Your task to perform on an android device: Search for macbook on target.com, select the first entry, and add it to the cart. Image 0: 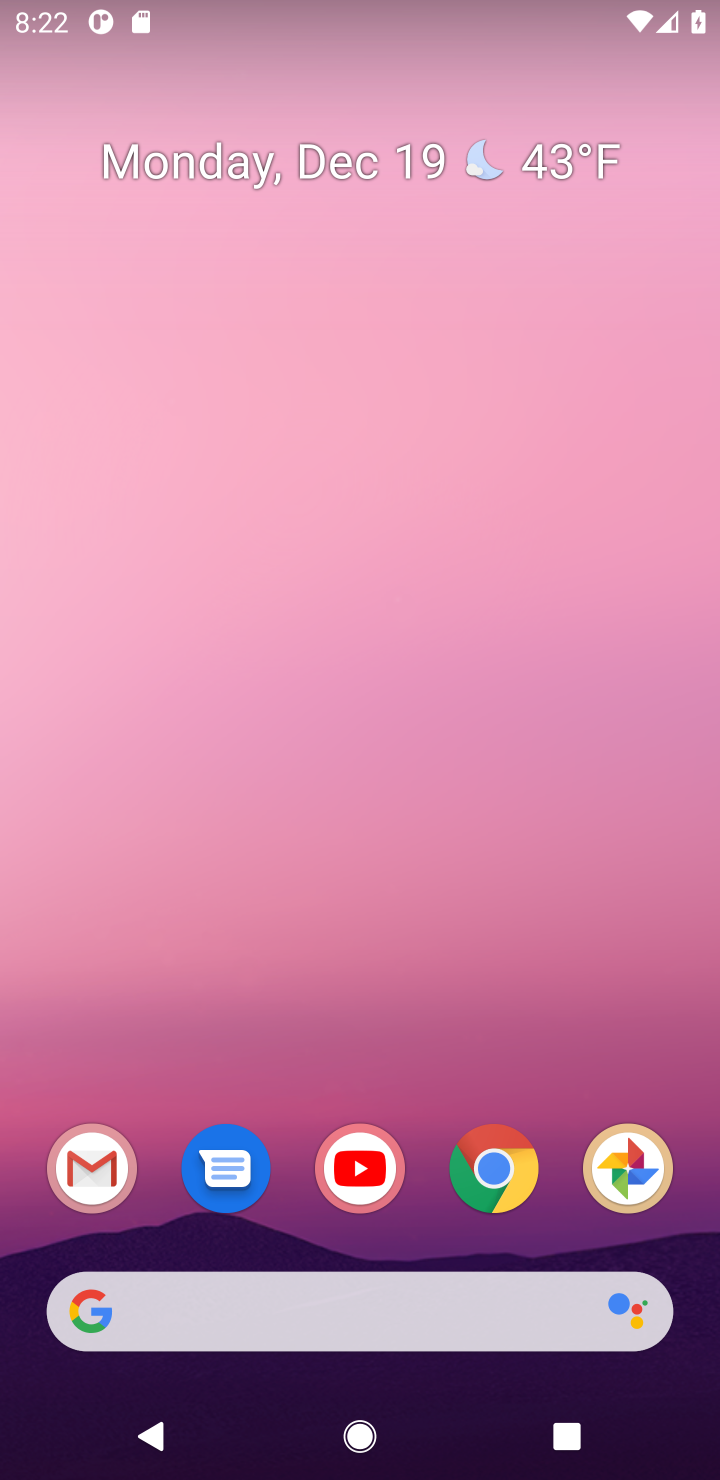
Step 0: click (496, 1168)
Your task to perform on an android device: Search for macbook on target.com, select the first entry, and add it to the cart. Image 1: 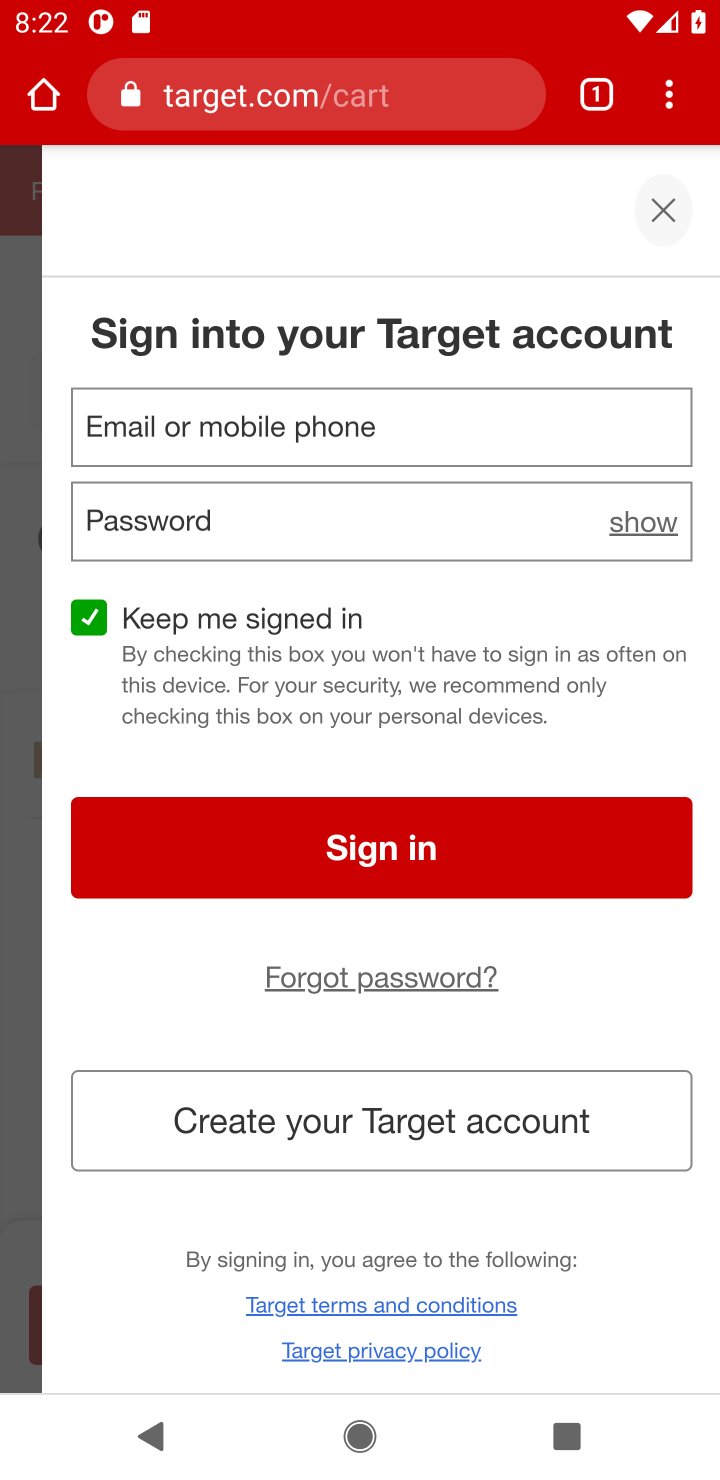
Step 1: click (658, 214)
Your task to perform on an android device: Search for macbook on target.com, select the first entry, and add it to the cart. Image 2: 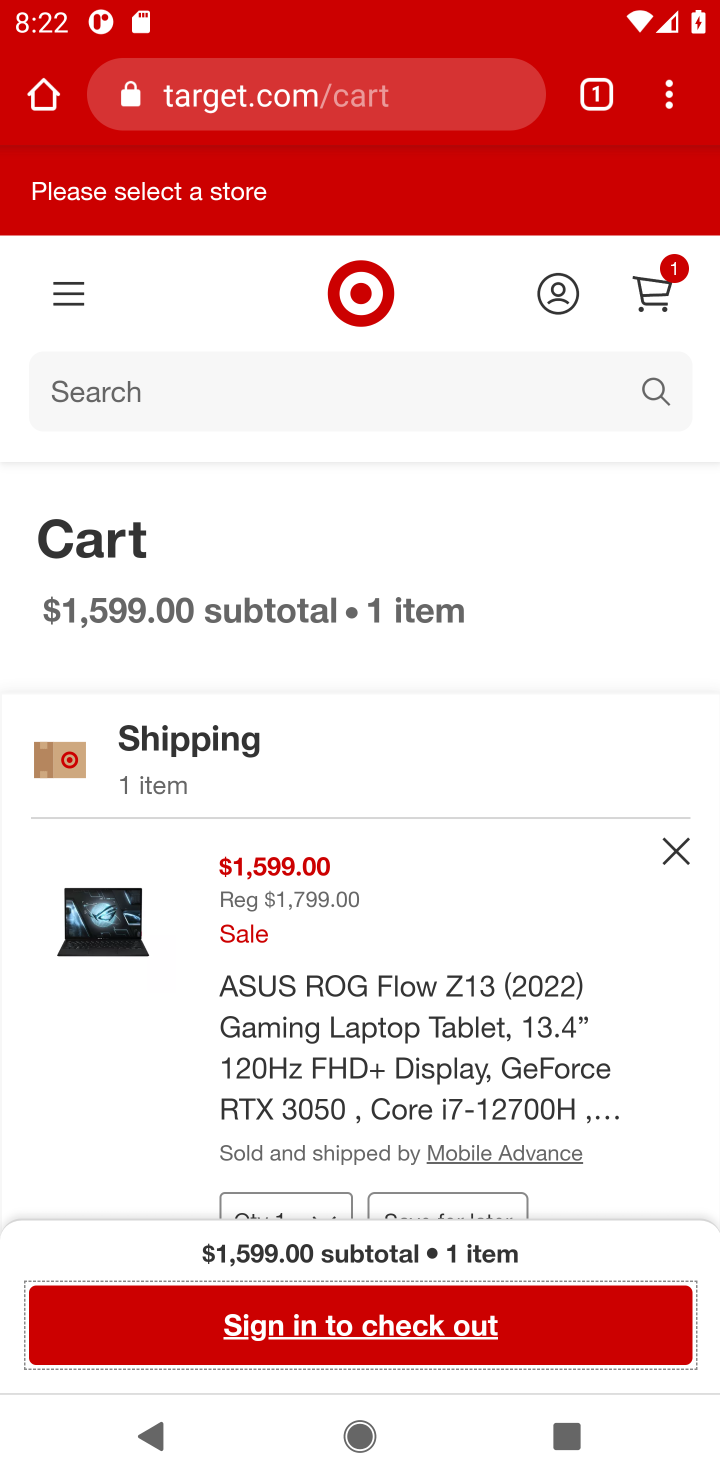
Step 2: click (95, 396)
Your task to perform on an android device: Search for macbook on target.com, select the first entry, and add it to the cart. Image 3: 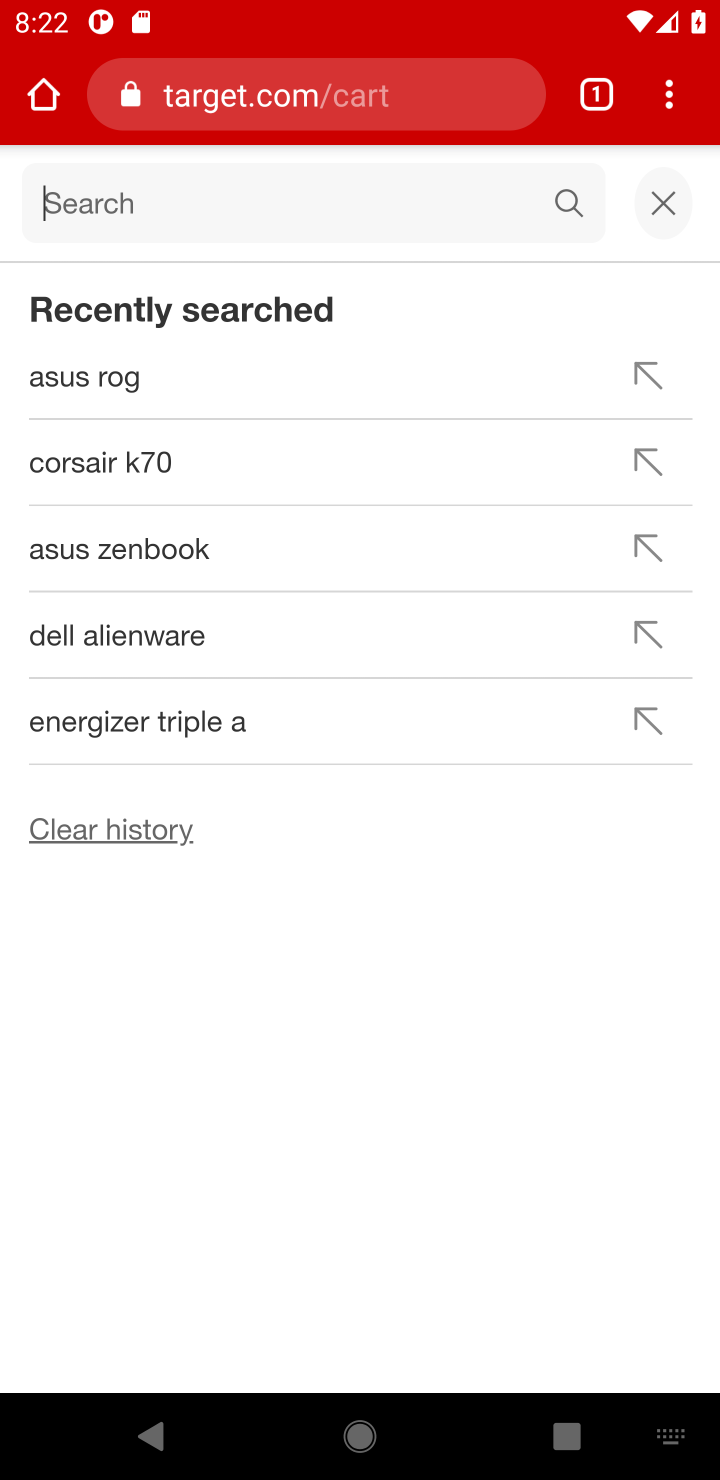
Step 3: type "macbook"
Your task to perform on an android device: Search for macbook on target.com, select the first entry, and add it to the cart. Image 4: 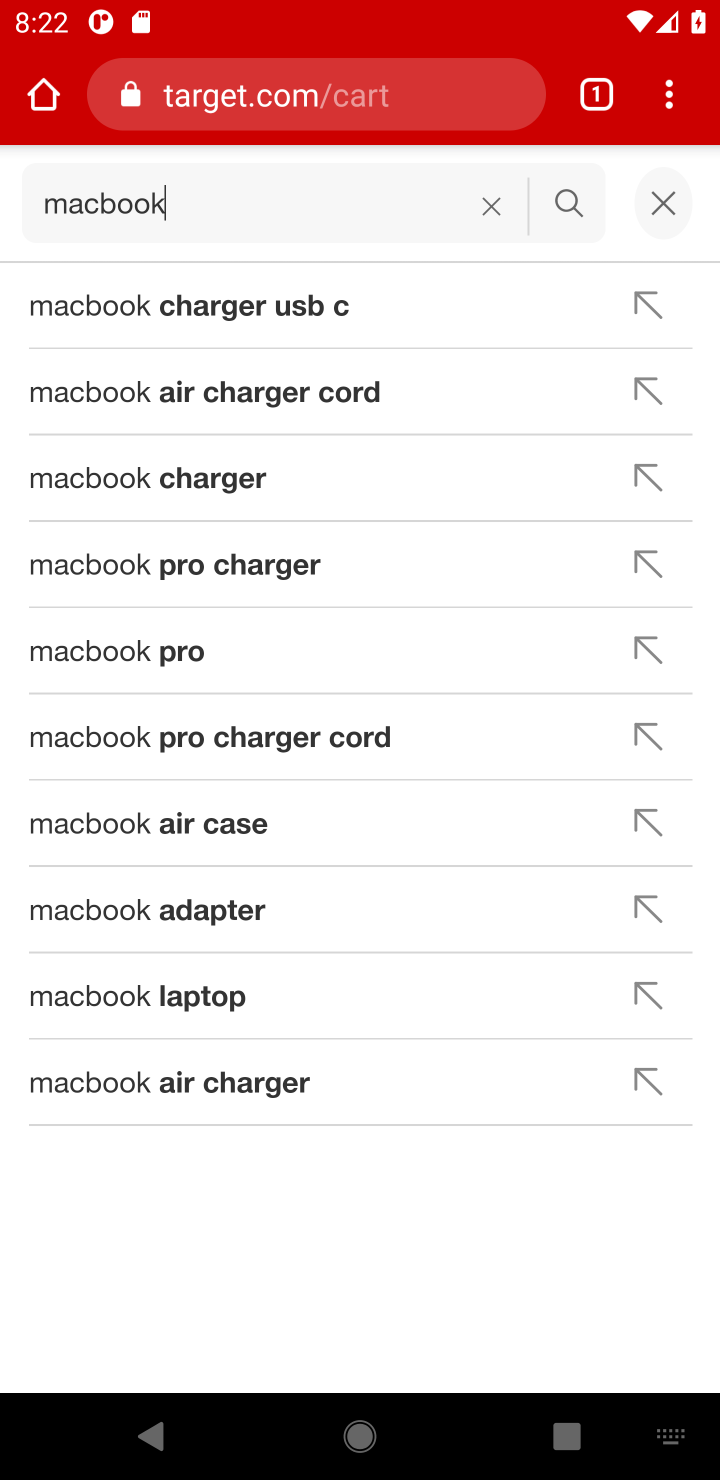
Step 4: click (568, 195)
Your task to perform on an android device: Search for macbook on target.com, select the first entry, and add it to the cart. Image 5: 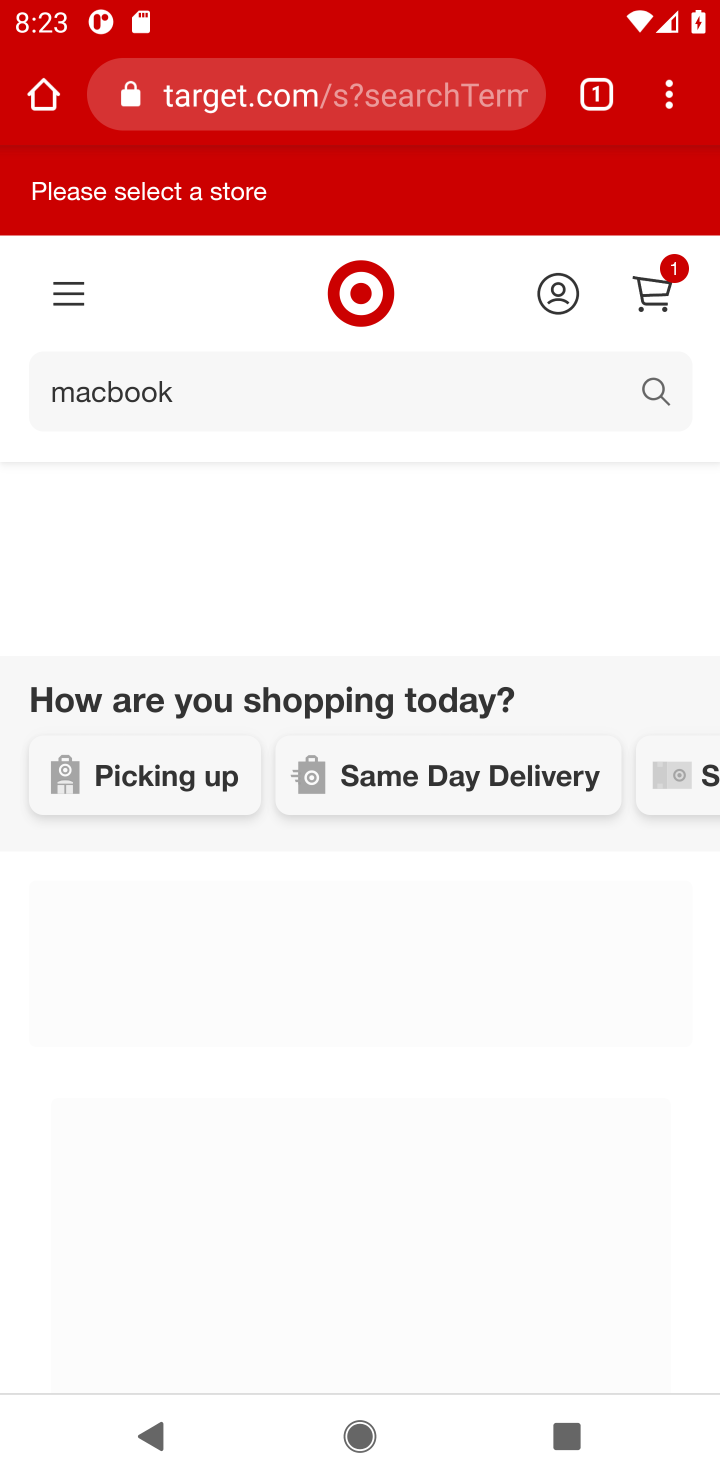
Step 5: drag from (295, 967) to (295, 605)
Your task to perform on an android device: Search for macbook on target.com, select the first entry, and add it to the cart. Image 6: 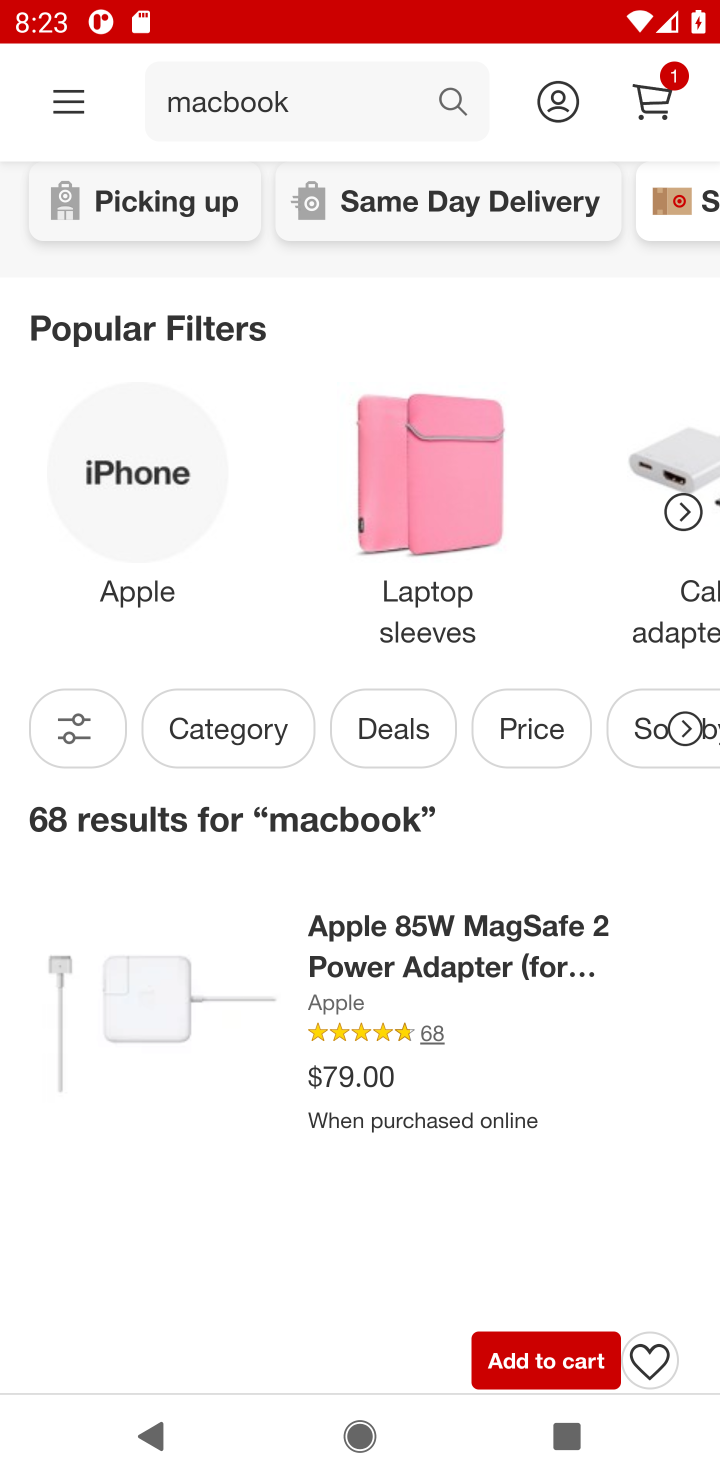
Step 6: drag from (265, 908) to (238, 563)
Your task to perform on an android device: Search for macbook on target.com, select the first entry, and add it to the cart. Image 7: 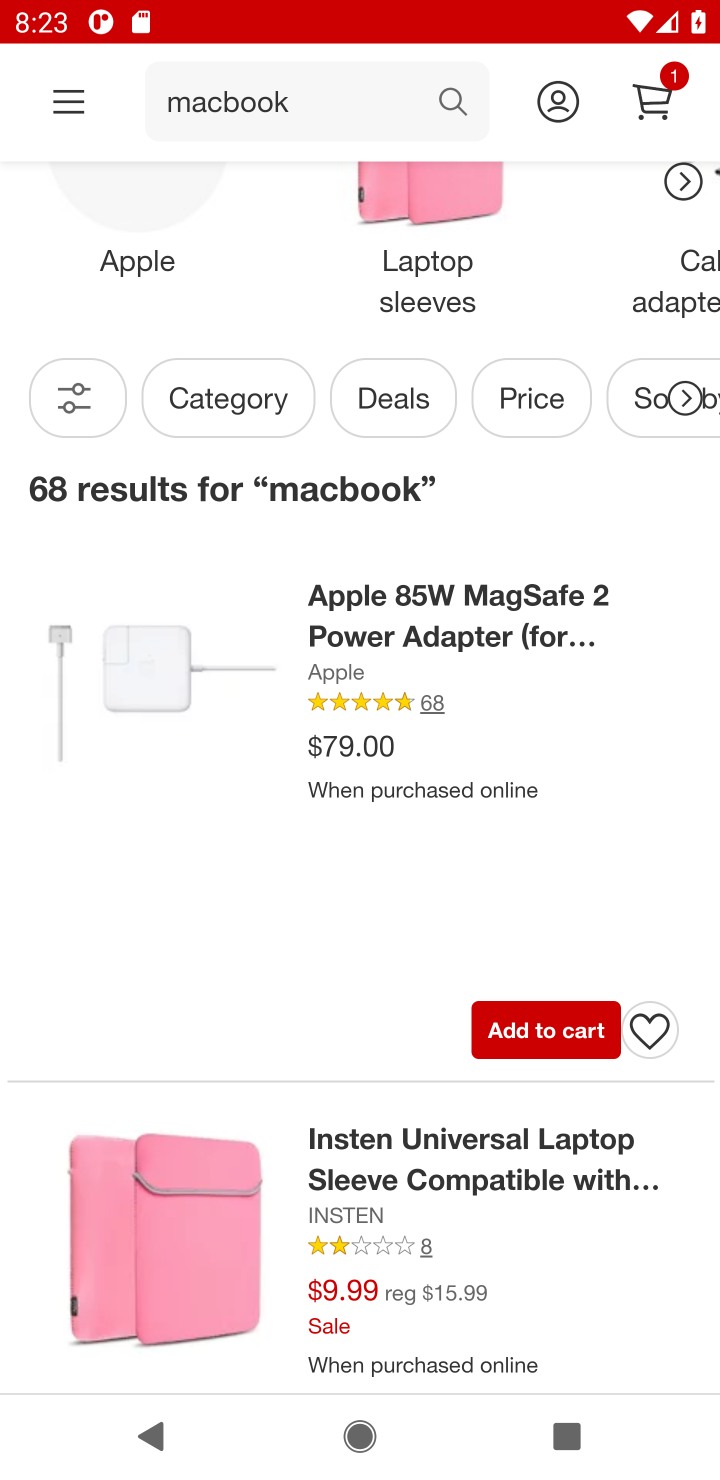
Step 7: click (562, 1034)
Your task to perform on an android device: Search for macbook on target.com, select the first entry, and add it to the cart. Image 8: 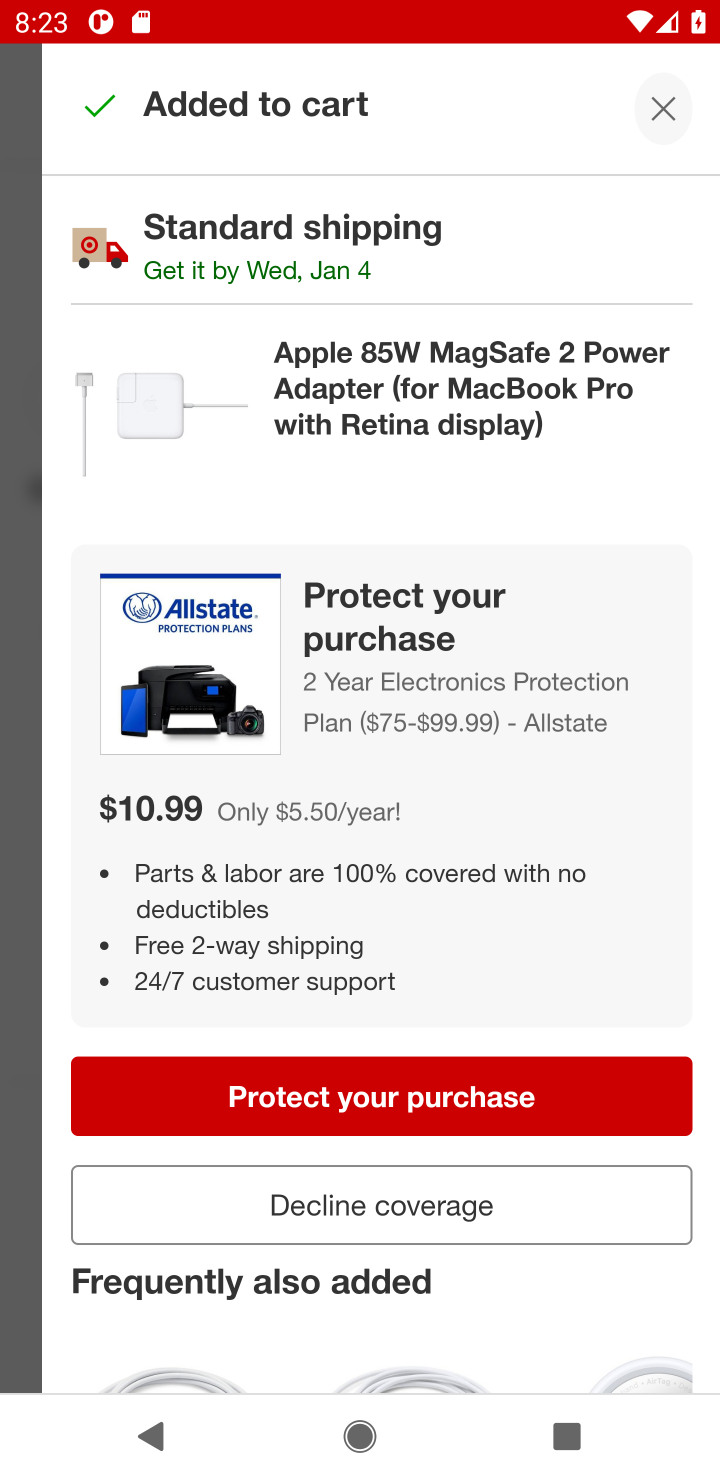
Step 8: task complete